Your task to perform on an android device: change alarm snooze length Image 0: 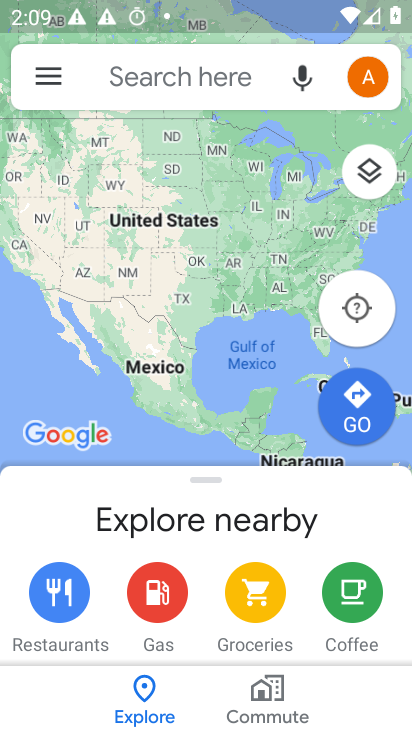
Step 0: press home button
Your task to perform on an android device: change alarm snooze length Image 1: 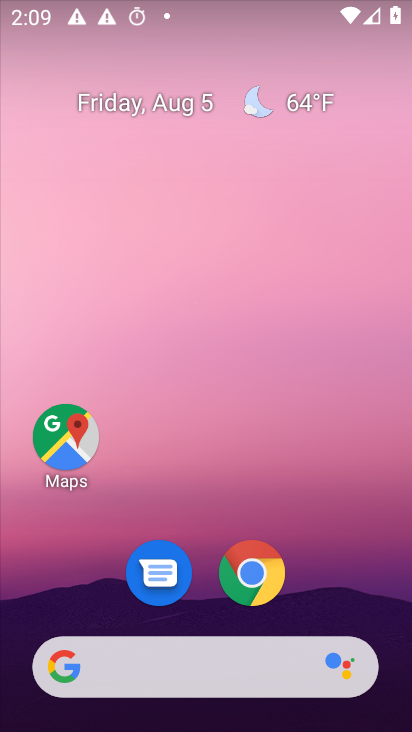
Step 1: drag from (342, 596) to (342, 210)
Your task to perform on an android device: change alarm snooze length Image 2: 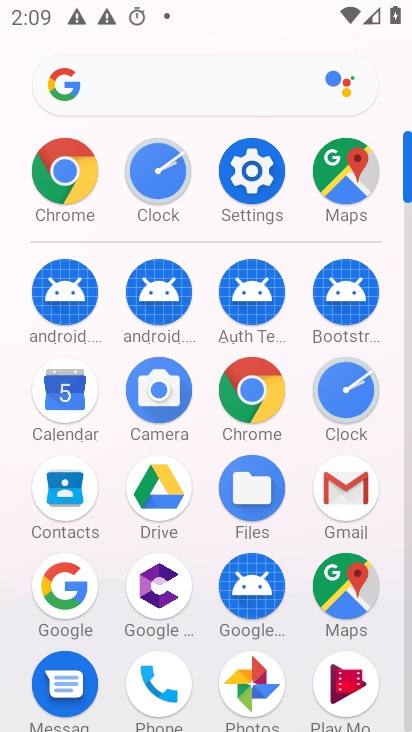
Step 2: click (344, 400)
Your task to perform on an android device: change alarm snooze length Image 3: 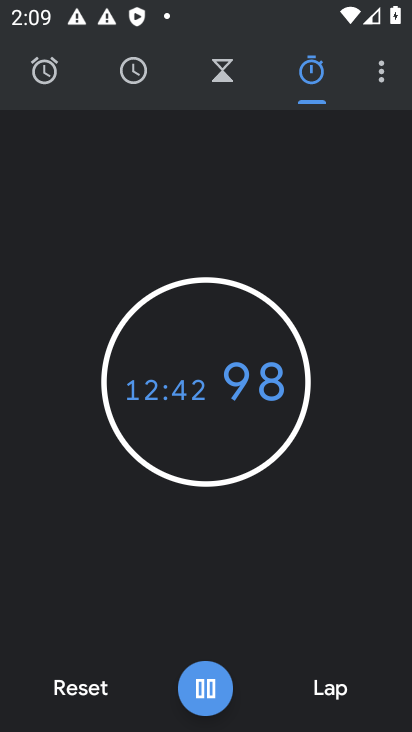
Step 3: click (383, 72)
Your task to perform on an android device: change alarm snooze length Image 4: 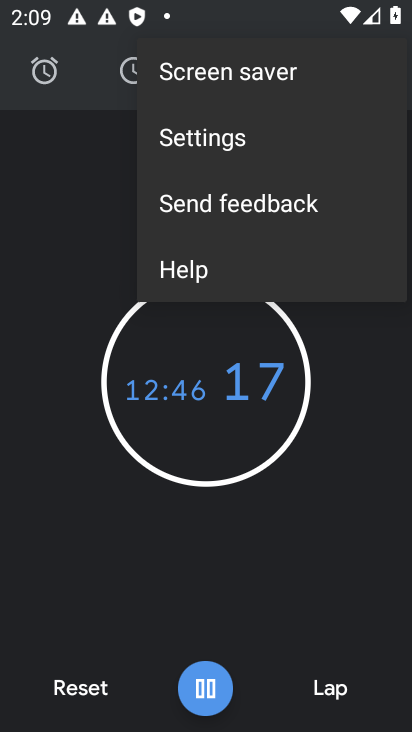
Step 4: click (265, 144)
Your task to perform on an android device: change alarm snooze length Image 5: 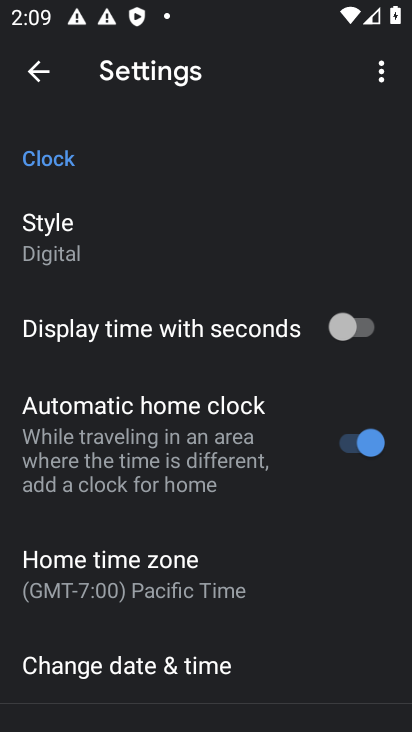
Step 5: drag from (293, 458) to (292, 371)
Your task to perform on an android device: change alarm snooze length Image 6: 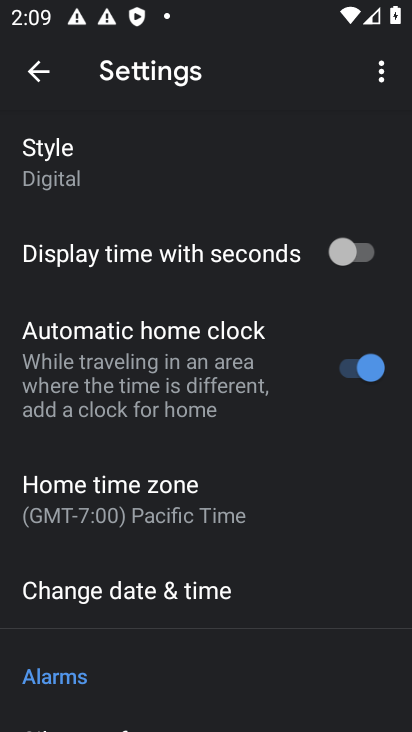
Step 6: drag from (292, 514) to (299, 382)
Your task to perform on an android device: change alarm snooze length Image 7: 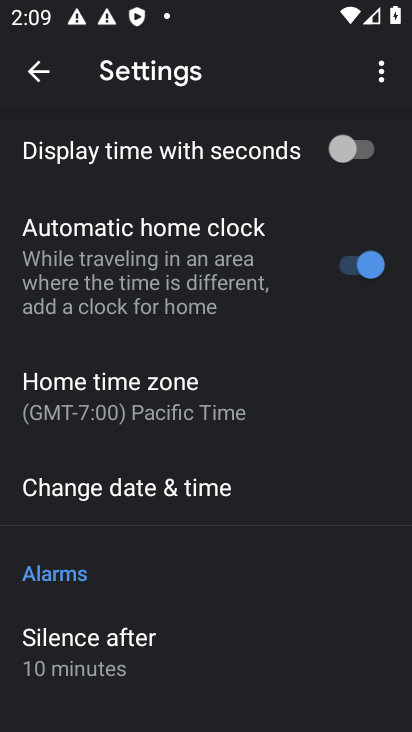
Step 7: drag from (311, 462) to (313, 357)
Your task to perform on an android device: change alarm snooze length Image 8: 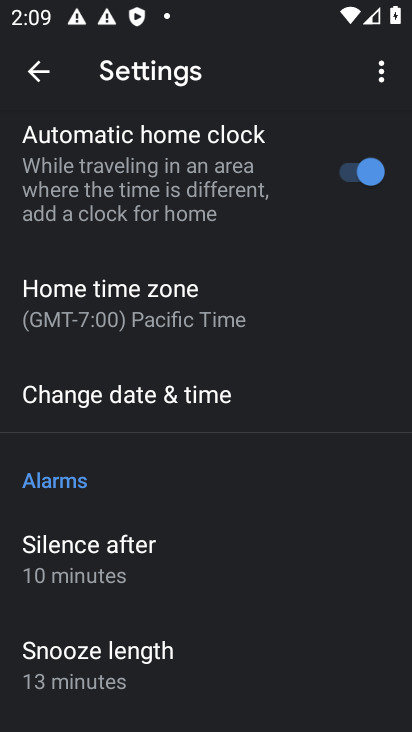
Step 8: drag from (330, 531) to (332, 410)
Your task to perform on an android device: change alarm snooze length Image 9: 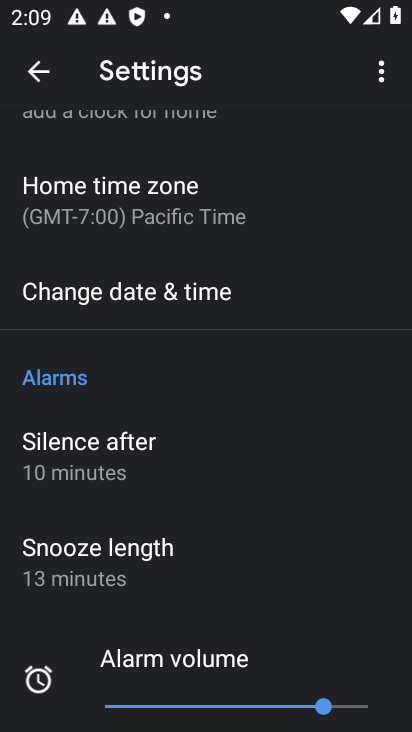
Step 9: drag from (316, 532) to (325, 393)
Your task to perform on an android device: change alarm snooze length Image 10: 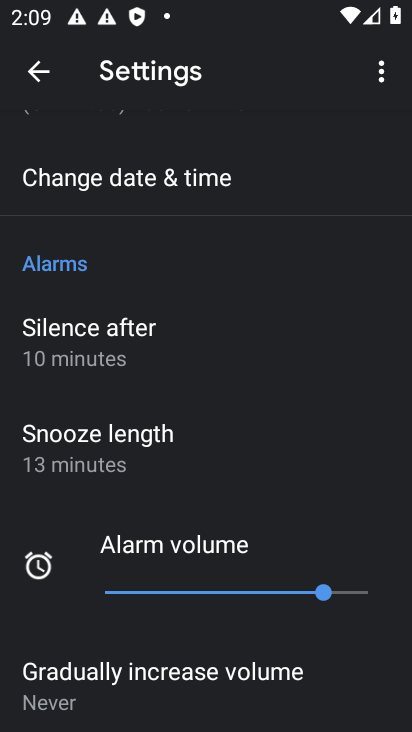
Step 10: drag from (315, 521) to (314, 405)
Your task to perform on an android device: change alarm snooze length Image 11: 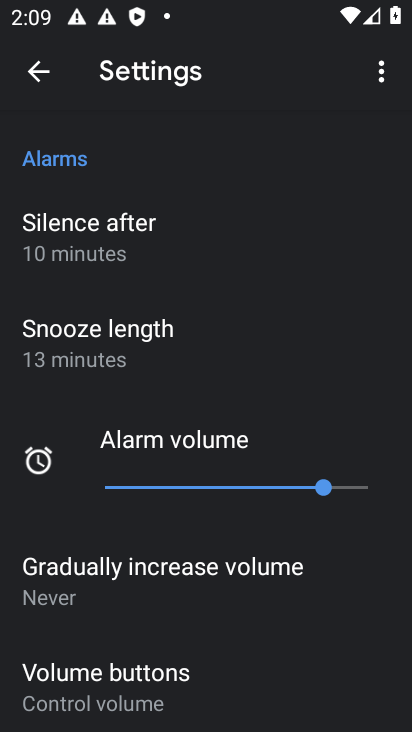
Step 11: click (215, 344)
Your task to perform on an android device: change alarm snooze length Image 12: 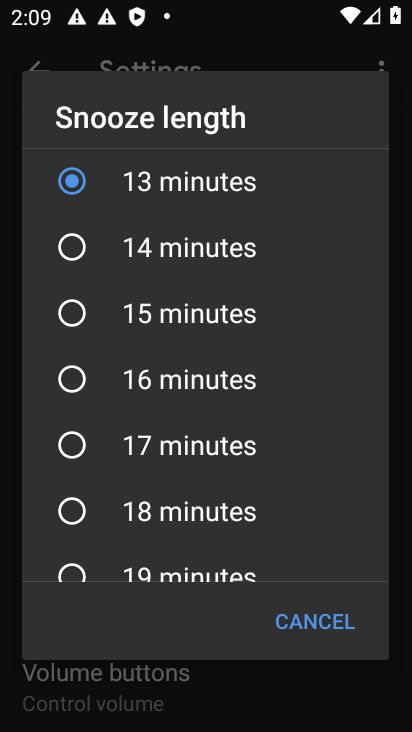
Step 12: click (203, 317)
Your task to perform on an android device: change alarm snooze length Image 13: 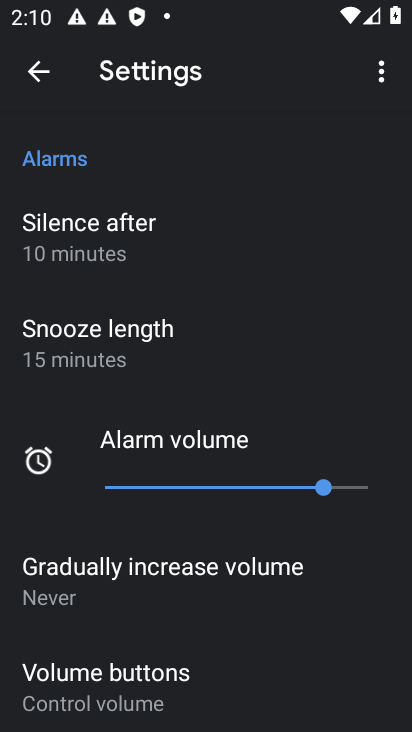
Step 13: task complete